Your task to perform on an android device: all mails in gmail Image 0: 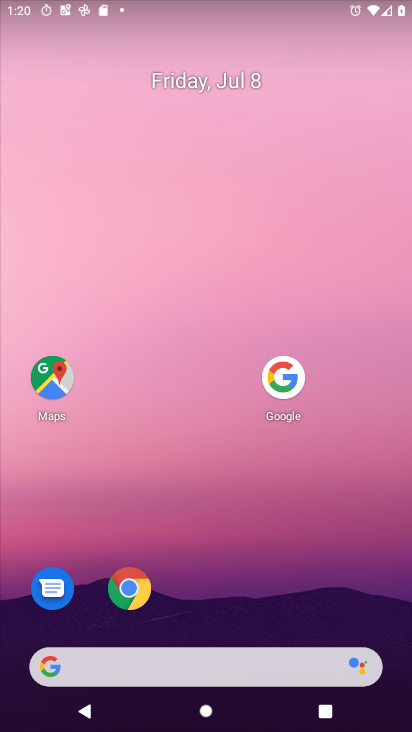
Step 0: drag from (183, 662) to (294, 69)
Your task to perform on an android device: all mails in gmail Image 1: 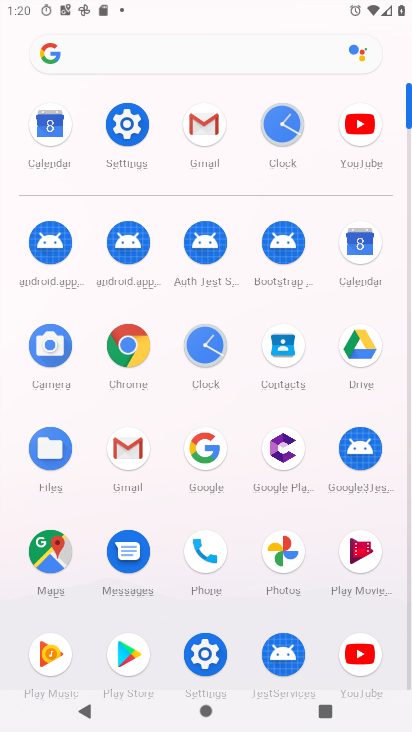
Step 1: click (204, 120)
Your task to perform on an android device: all mails in gmail Image 2: 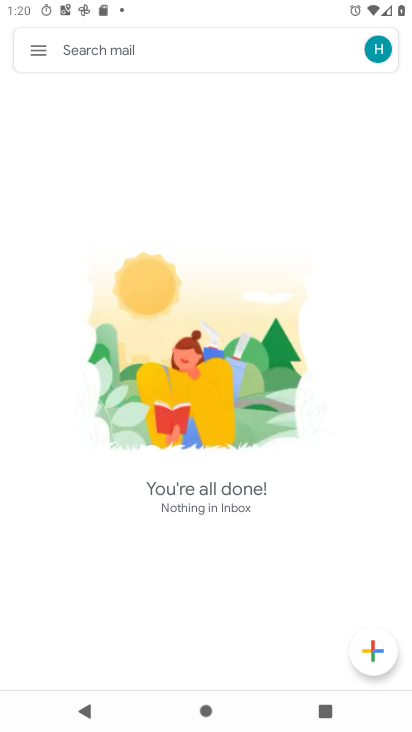
Step 2: click (40, 48)
Your task to perform on an android device: all mails in gmail Image 3: 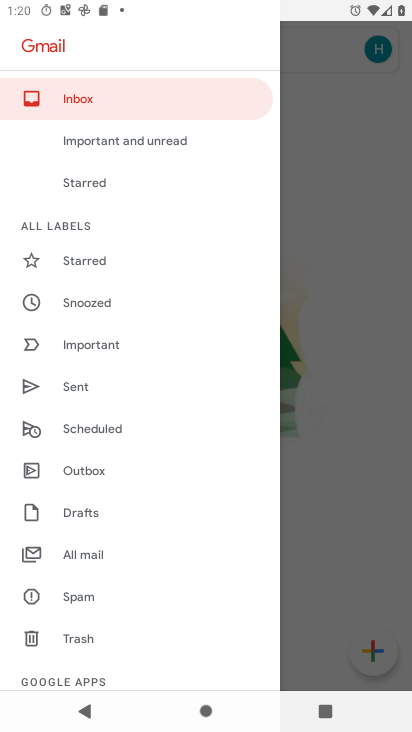
Step 3: click (87, 546)
Your task to perform on an android device: all mails in gmail Image 4: 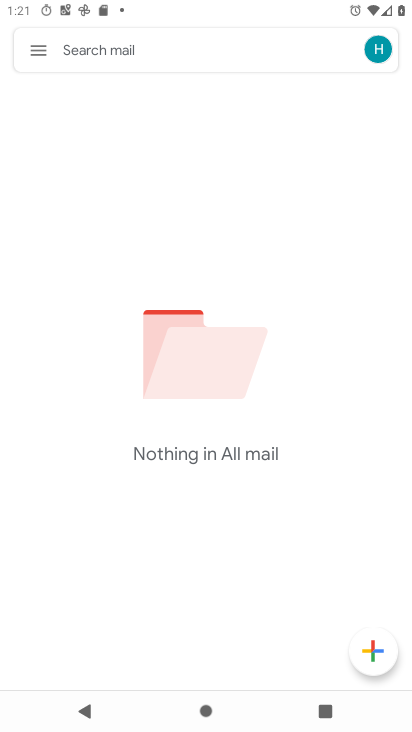
Step 4: task complete